Your task to perform on an android device: Turn on the flashlight Image 0: 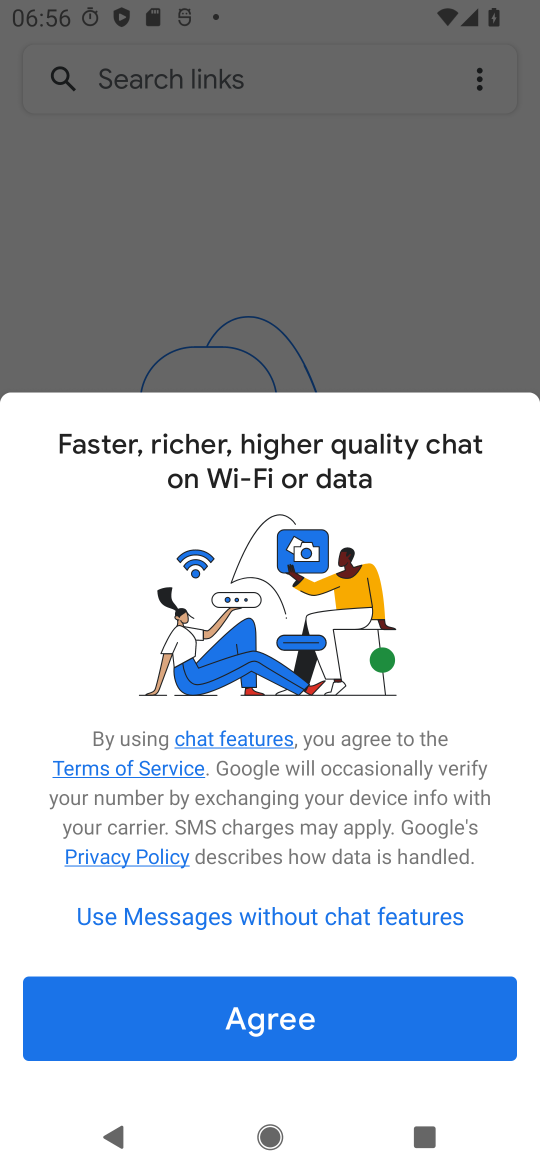
Step 0: press home button
Your task to perform on an android device: Turn on the flashlight Image 1: 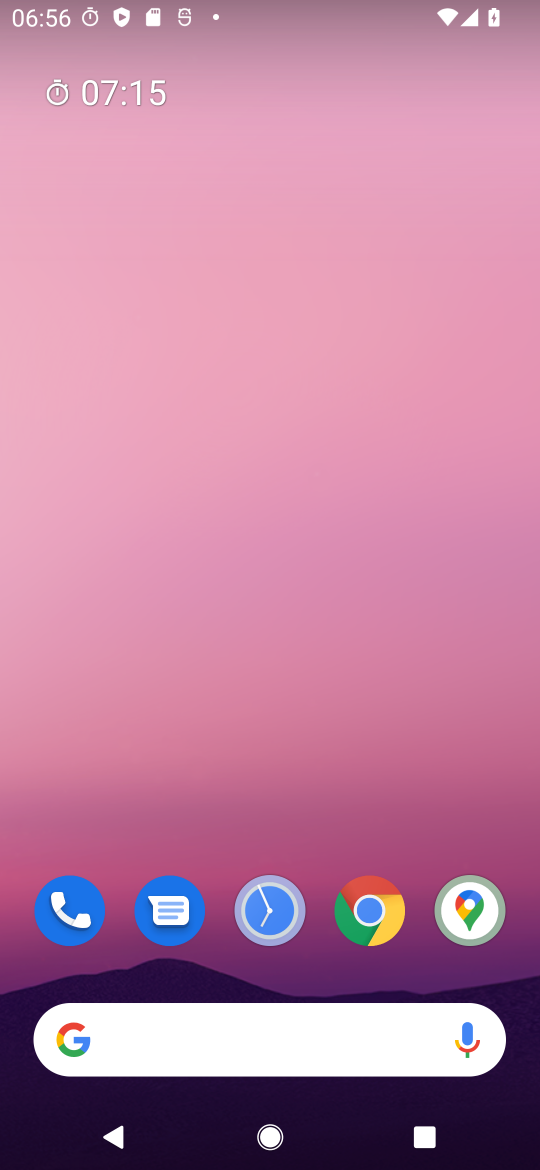
Step 1: drag from (233, 353) to (264, 1123)
Your task to perform on an android device: Turn on the flashlight Image 2: 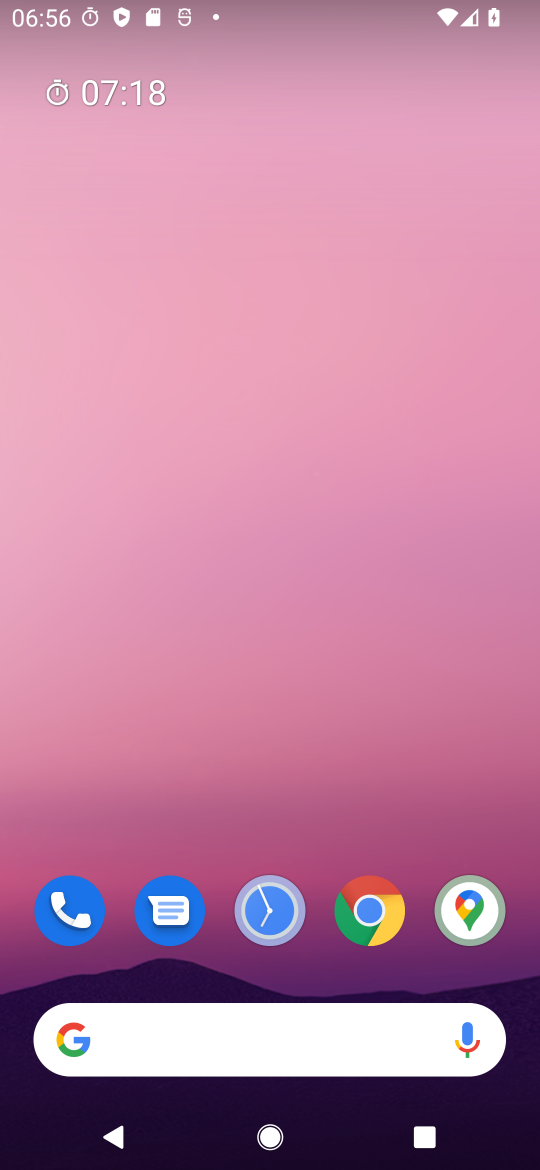
Step 2: drag from (272, 7) to (222, 1152)
Your task to perform on an android device: Turn on the flashlight Image 3: 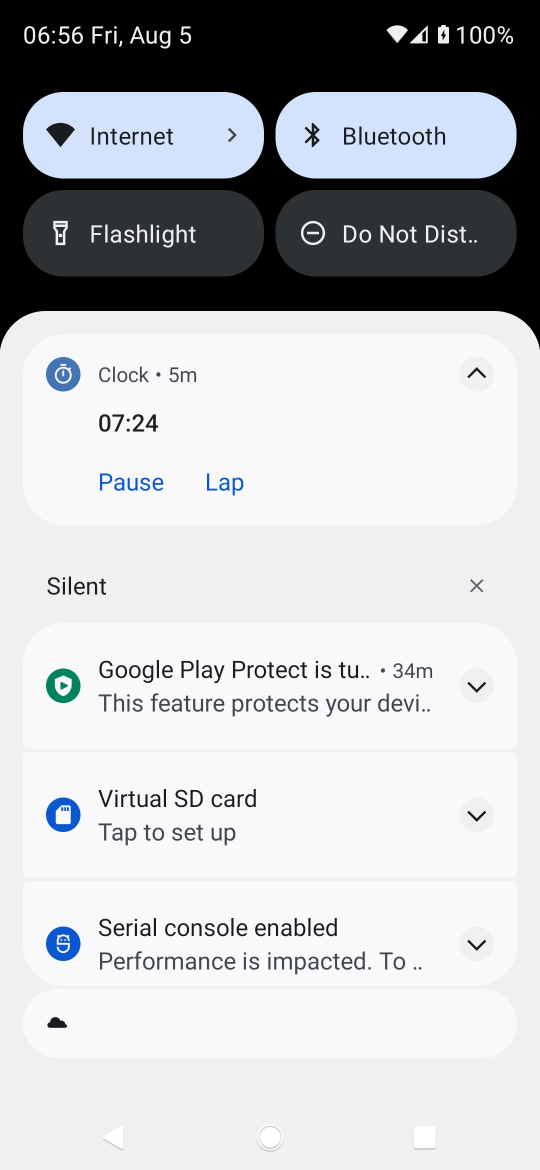
Step 3: click (189, 255)
Your task to perform on an android device: Turn on the flashlight Image 4: 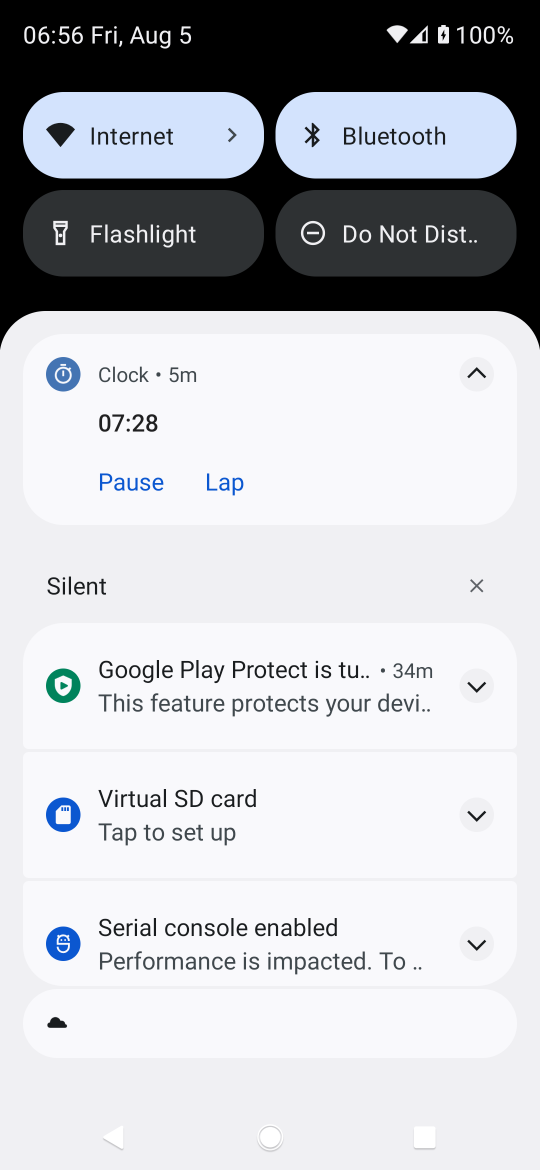
Step 4: task complete